Your task to perform on an android device: check google app version Image 0: 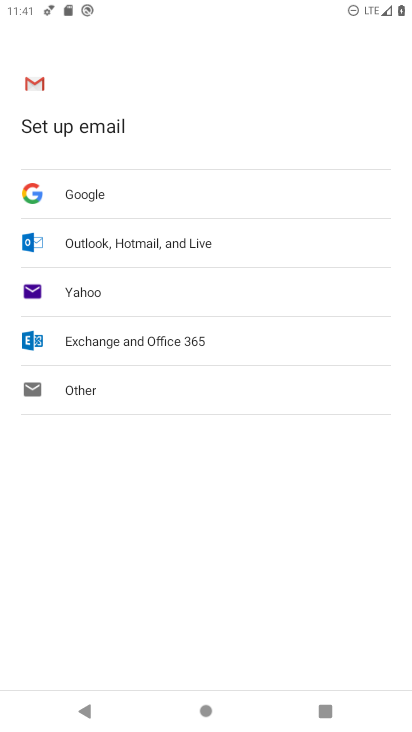
Step 0: press home button
Your task to perform on an android device: check google app version Image 1: 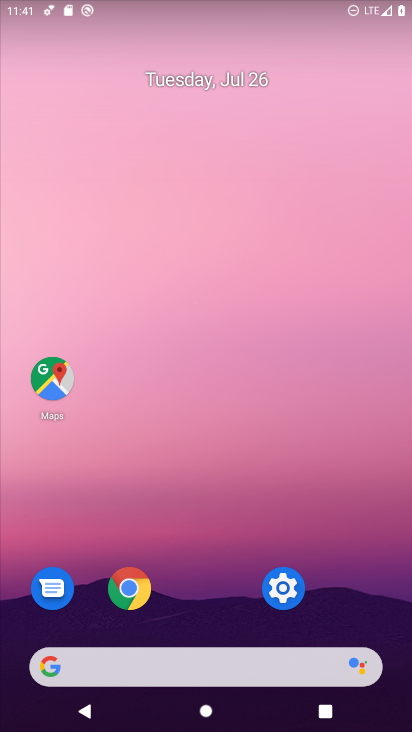
Step 1: drag from (223, 676) to (182, 215)
Your task to perform on an android device: check google app version Image 2: 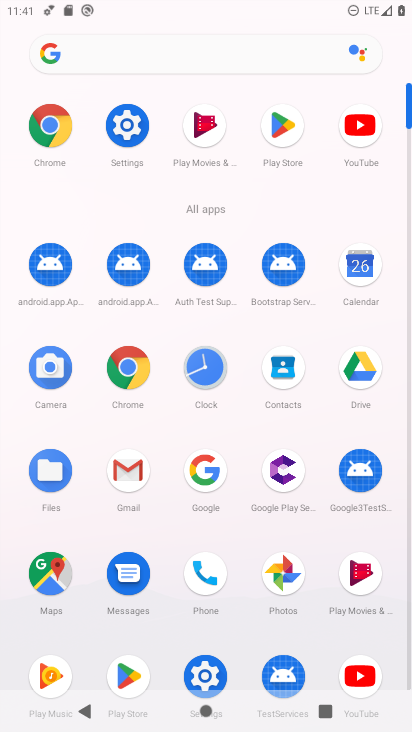
Step 2: click (51, 141)
Your task to perform on an android device: check google app version Image 3: 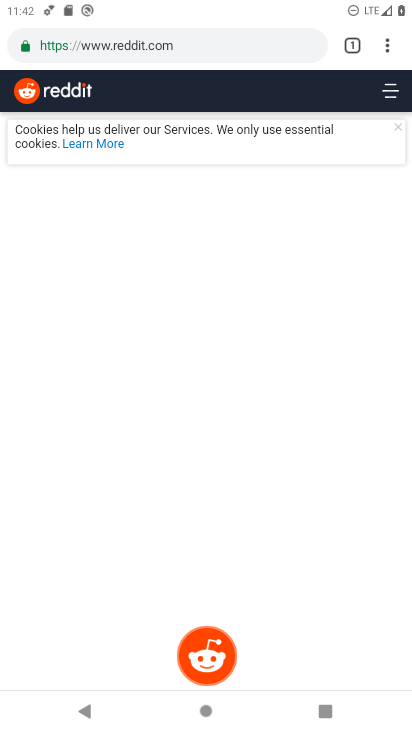
Step 3: click (390, 55)
Your task to perform on an android device: check google app version Image 4: 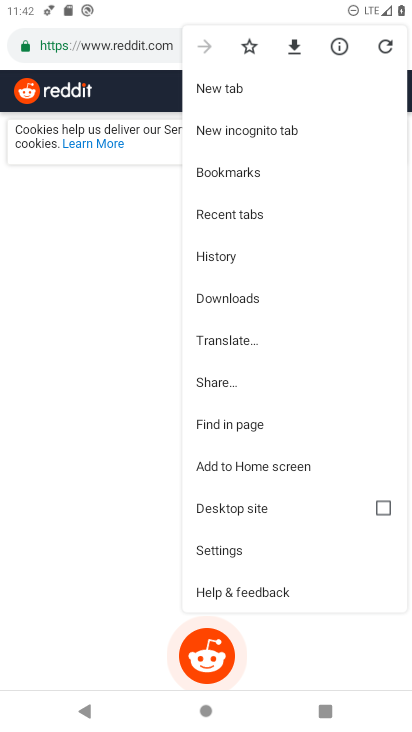
Step 4: click (256, 547)
Your task to perform on an android device: check google app version Image 5: 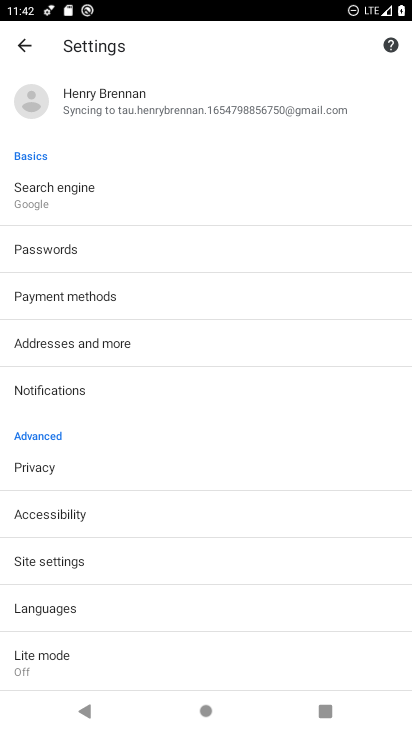
Step 5: drag from (108, 616) to (128, 341)
Your task to perform on an android device: check google app version Image 6: 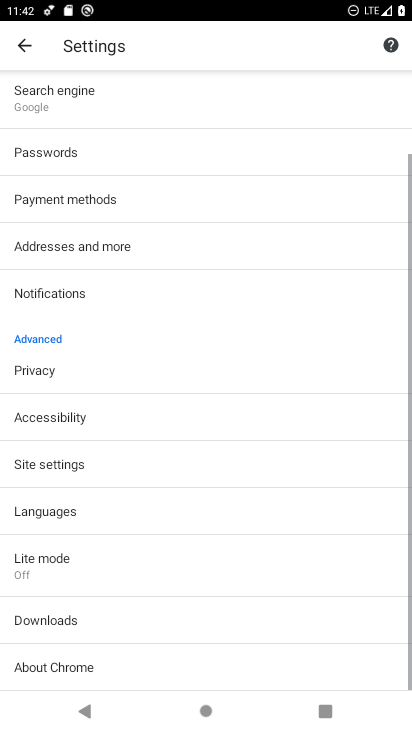
Step 6: click (85, 668)
Your task to perform on an android device: check google app version Image 7: 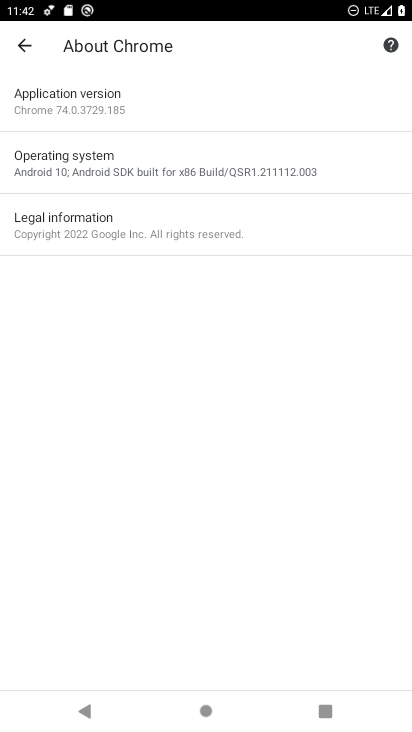
Step 7: click (147, 115)
Your task to perform on an android device: check google app version Image 8: 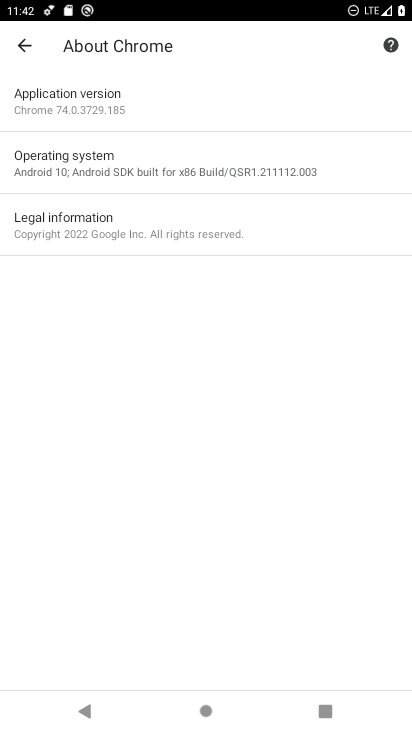
Step 8: task complete